Your task to perform on an android device: all mails in gmail Image 0: 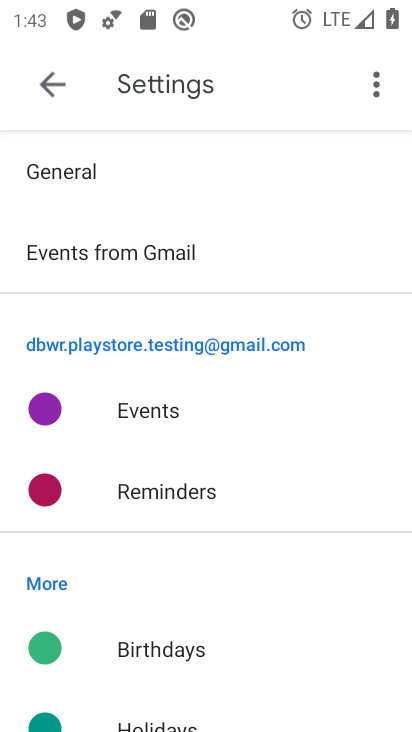
Step 0: press home button
Your task to perform on an android device: all mails in gmail Image 1: 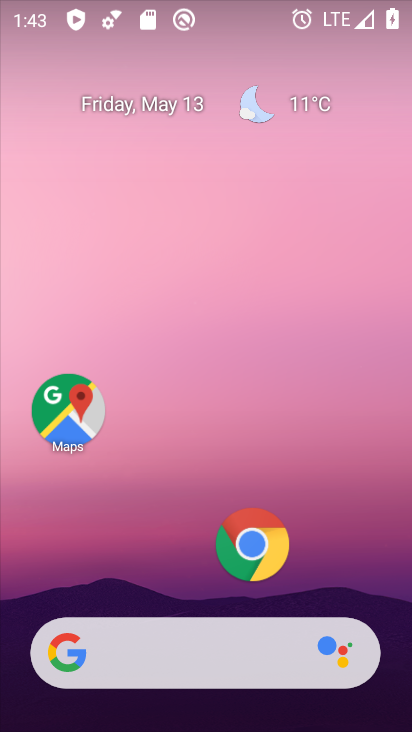
Step 1: drag from (128, 551) to (138, 151)
Your task to perform on an android device: all mails in gmail Image 2: 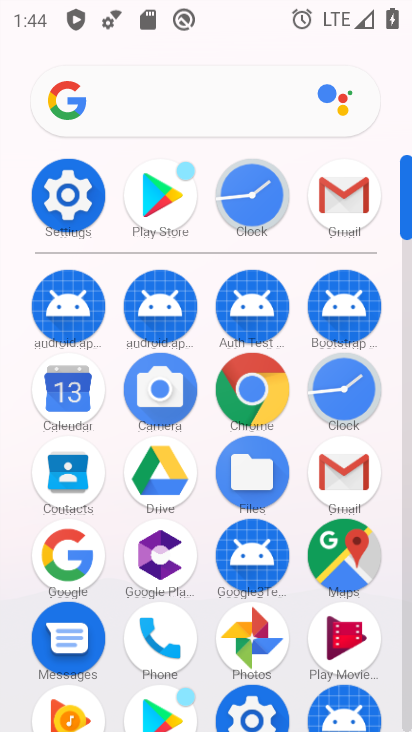
Step 2: click (353, 211)
Your task to perform on an android device: all mails in gmail Image 3: 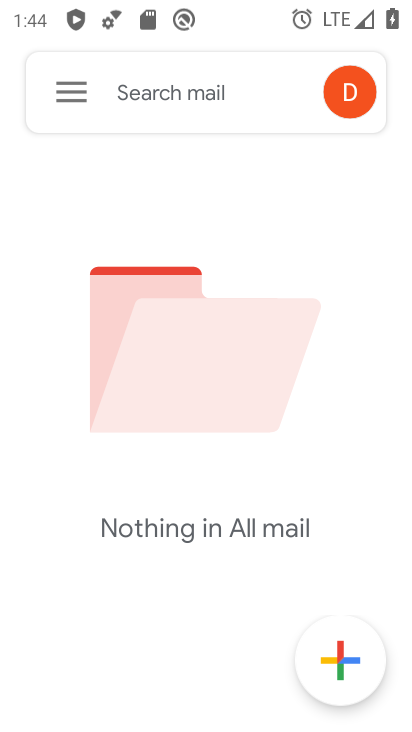
Step 3: click (78, 95)
Your task to perform on an android device: all mails in gmail Image 4: 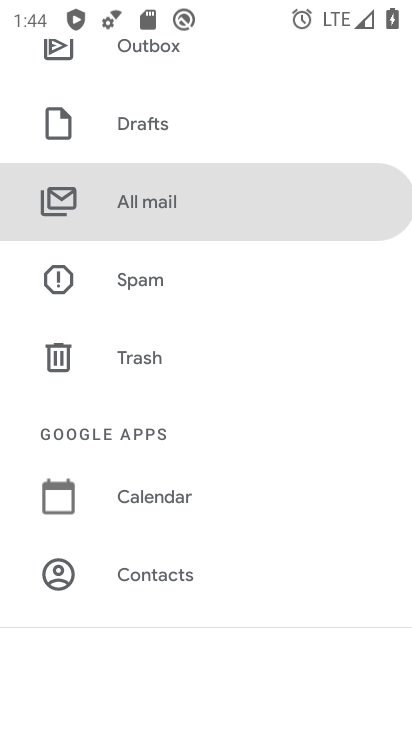
Step 4: click (184, 224)
Your task to perform on an android device: all mails in gmail Image 5: 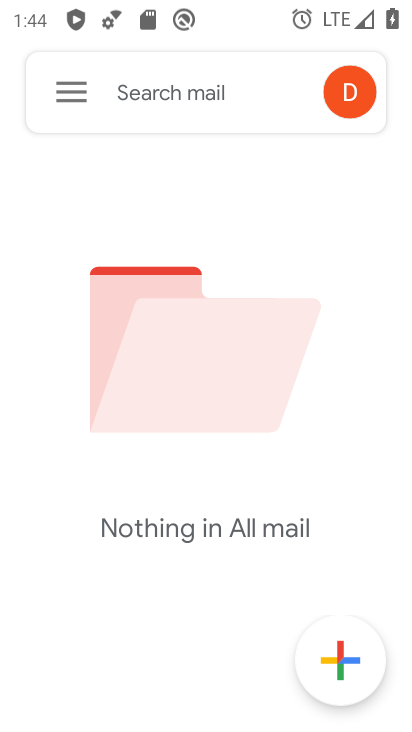
Step 5: task complete